Your task to perform on an android device: Open Chrome and go to settings Image 0: 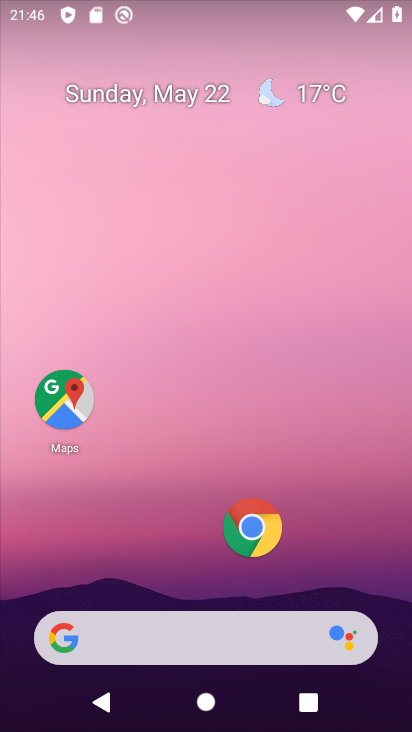
Step 0: click (256, 522)
Your task to perform on an android device: Open Chrome and go to settings Image 1: 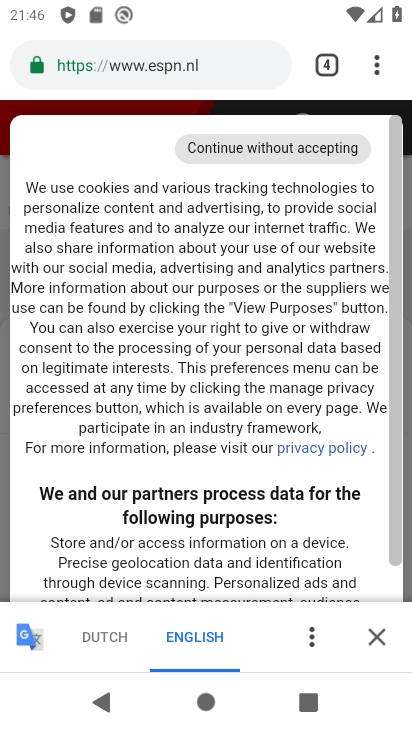
Step 1: click (377, 68)
Your task to perform on an android device: Open Chrome and go to settings Image 2: 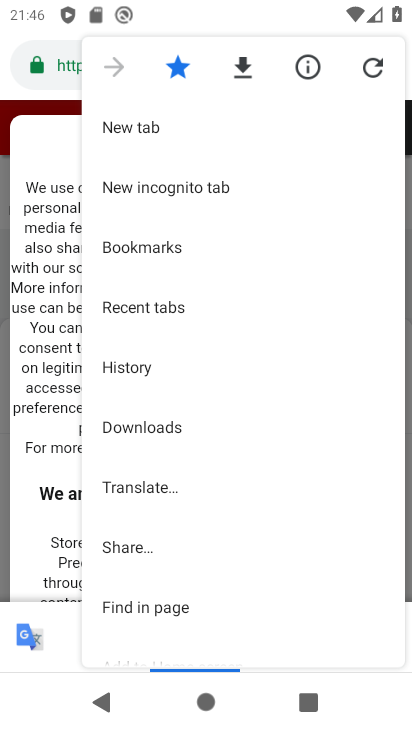
Step 2: drag from (235, 499) to (185, 224)
Your task to perform on an android device: Open Chrome and go to settings Image 3: 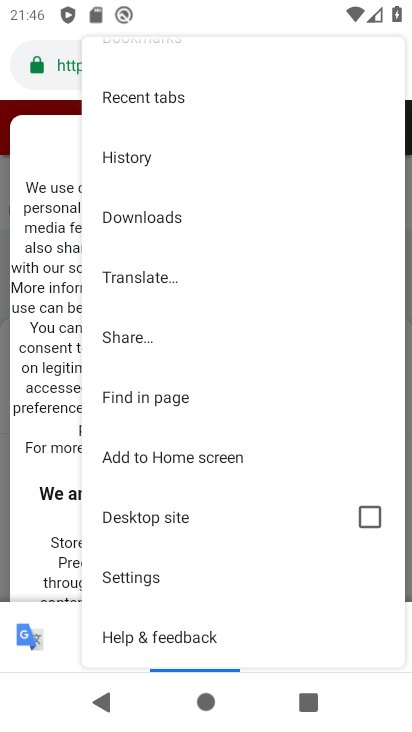
Step 3: click (131, 572)
Your task to perform on an android device: Open Chrome and go to settings Image 4: 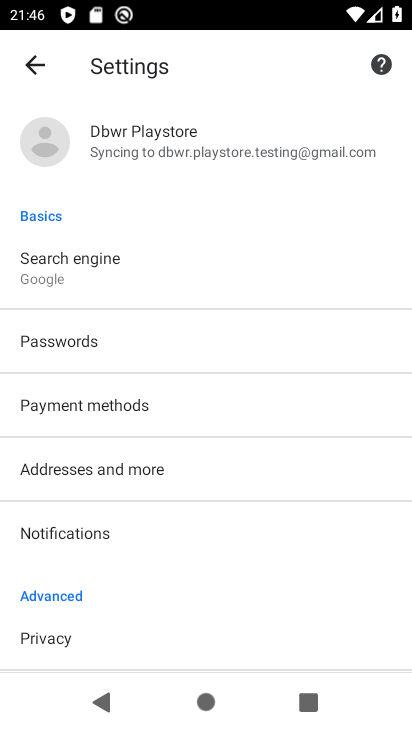
Step 4: task complete